Your task to perform on an android device: check the backup settings in the google photos Image 0: 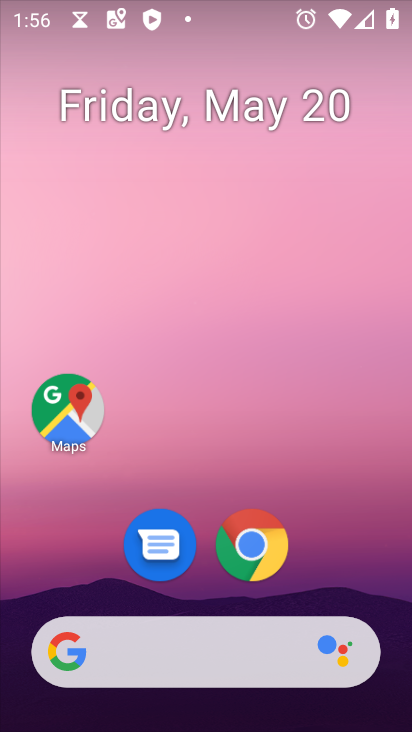
Step 0: drag from (361, 573) to (304, 57)
Your task to perform on an android device: check the backup settings in the google photos Image 1: 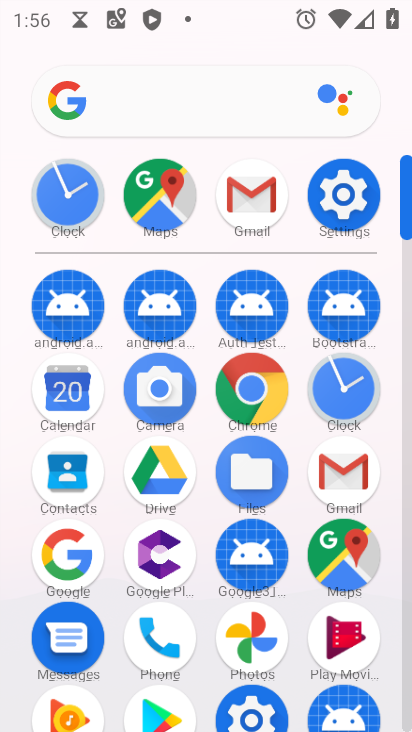
Step 1: click (259, 652)
Your task to perform on an android device: check the backup settings in the google photos Image 2: 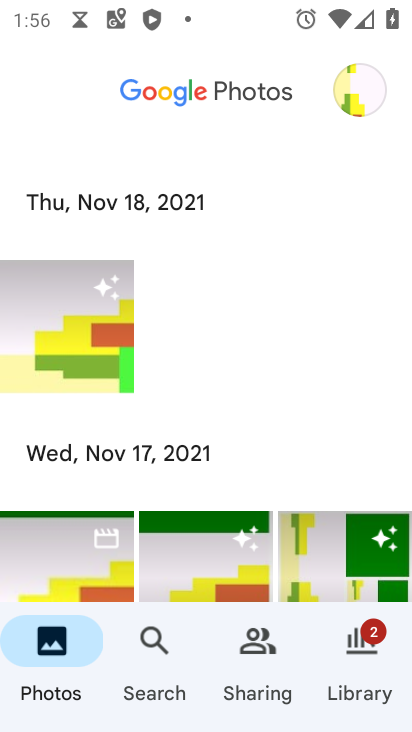
Step 2: click (348, 85)
Your task to perform on an android device: check the backup settings in the google photos Image 3: 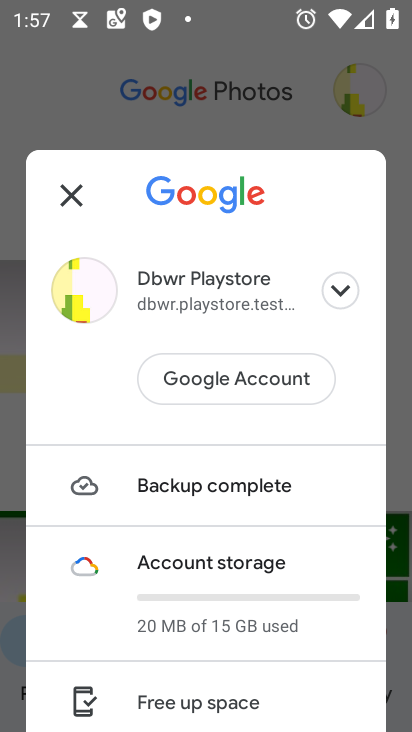
Step 3: click (332, 285)
Your task to perform on an android device: check the backup settings in the google photos Image 4: 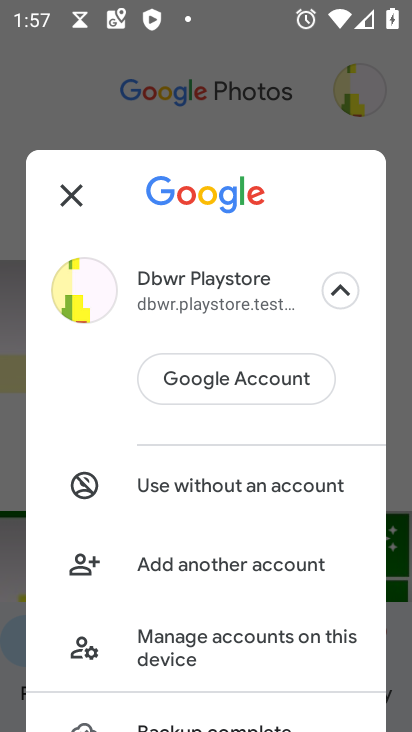
Step 4: drag from (267, 667) to (276, 428)
Your task to perform on an android device: check the backup settings in the google photos Image 5: 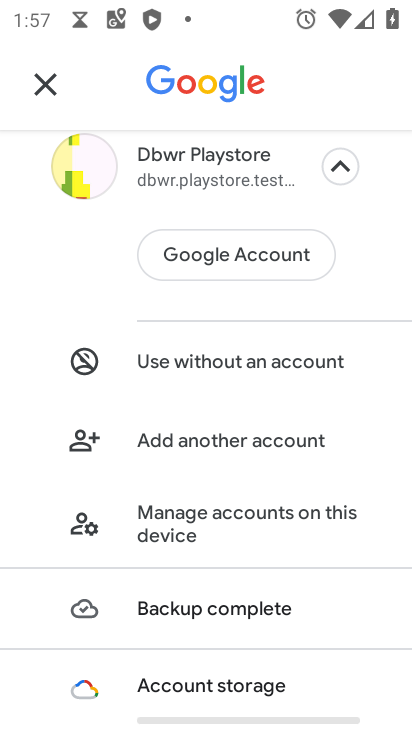
Step 5: drag from (263, 650) to (267, 217)
Your task to perform on an android device: check the backup settings in the google photos Image 6: 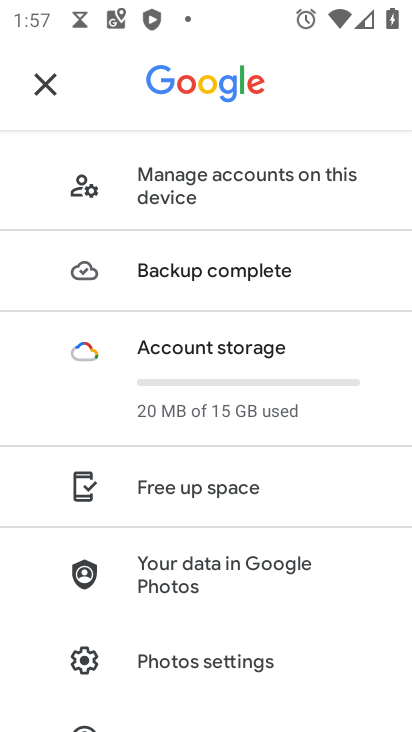
Step 6: click (207, 657)
Your task to perform on an android device: check the backup settings in the google photos Image 7: 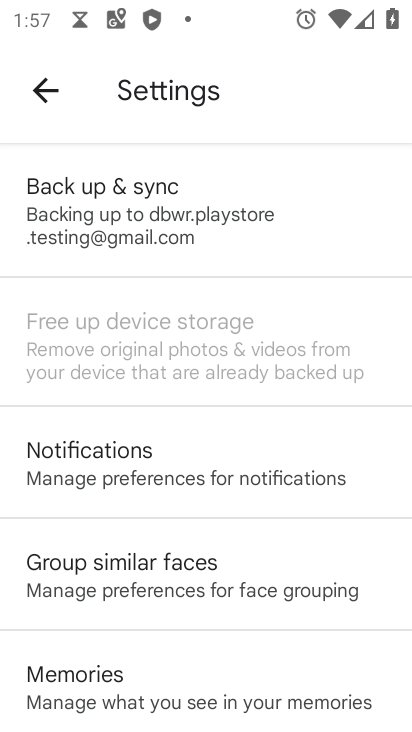
Step 7: click (199, 209)
Your task to perform on an android device: check the backup settings in the google photos Image 8: 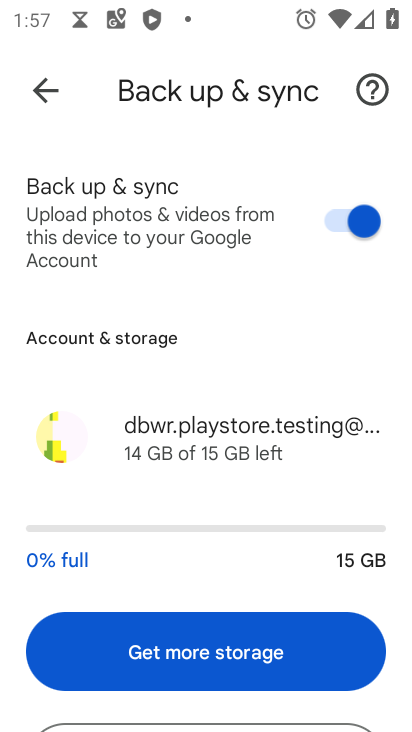
Step 8: task complete